Your task to perform on an android device: Open calendar and show me the fourth week of next month Image 0: 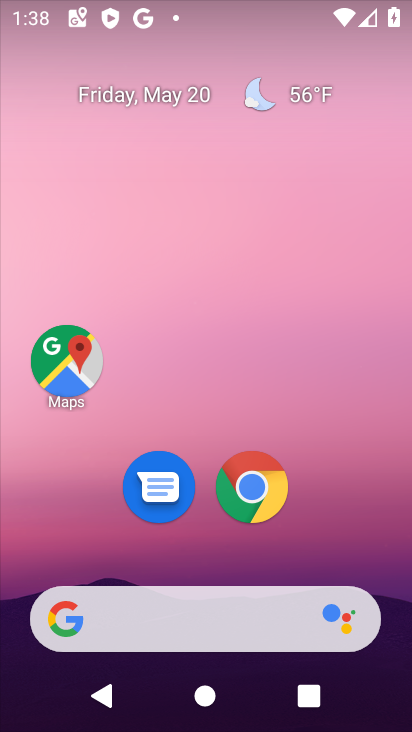
Step 0: drag from (202, 559) to (271, 10)
Your task to perform on an android device: Open calendar and show me the fourth week of next month Image 1: 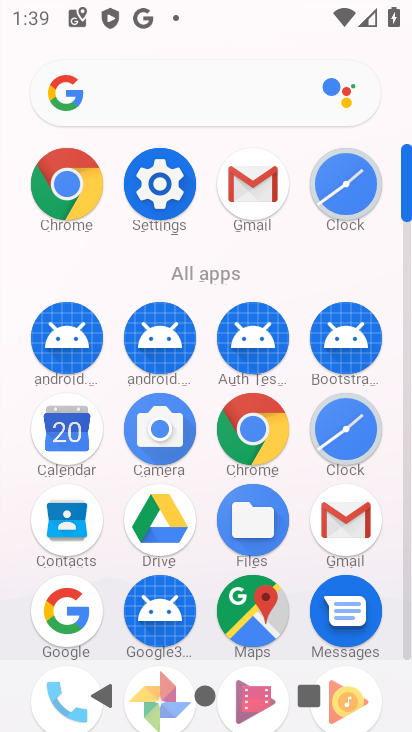
Step 1: click (59, 432)
Your task to perform on an android device: Open calendar and show me the fourth week of next month Image 2: 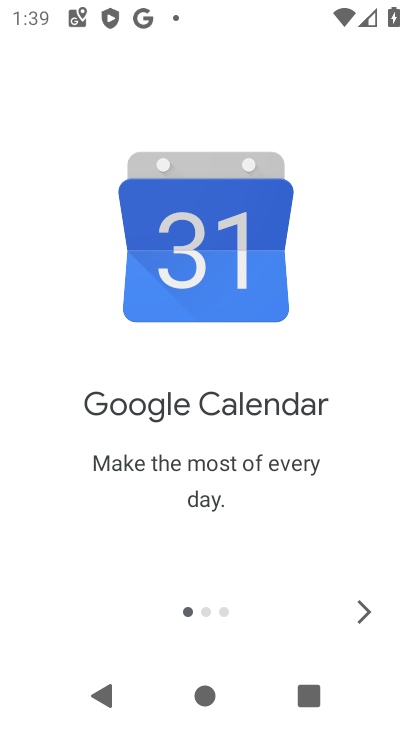
Step 2: click (374, 618)
Your task to perform on an android device: Open calendar and show me the fourth week of next month Image 3: 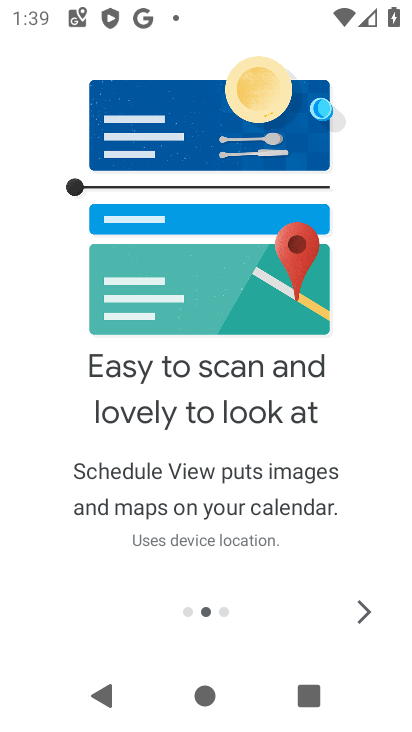
Step 3: click (360, 612)
Your task to perform on an android device: Open calendar and show me the fourth week of next month Image 4: 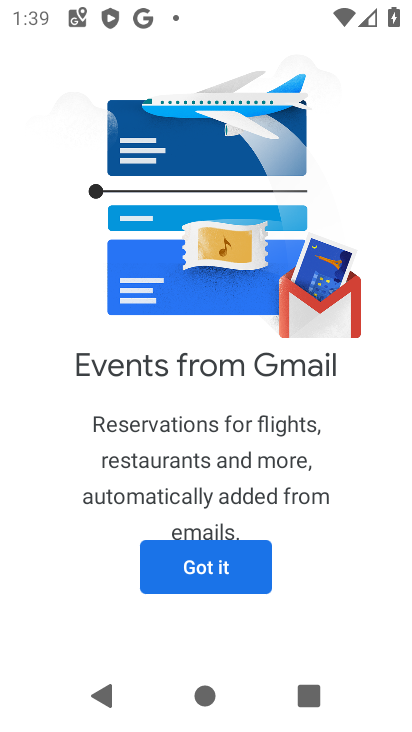
Step 4: click (223, 568)
Your task to perform on an android device: Open calendar and show me the fourth week of next month Image 5: 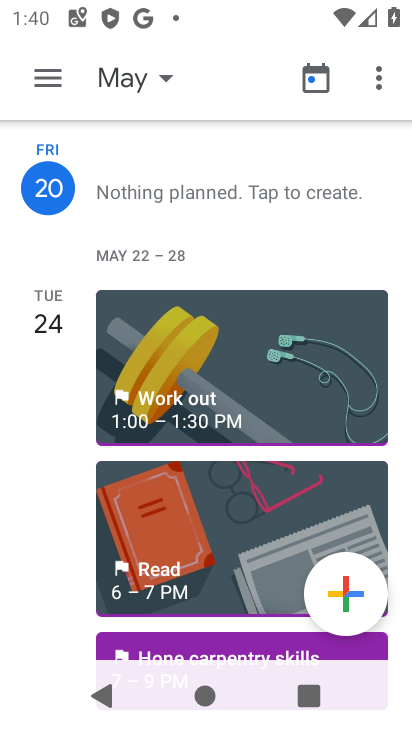
Step 5: click (48, 79)
Your task to perform on an android device: Open calendar and show me the fourth week of next month Image 6: 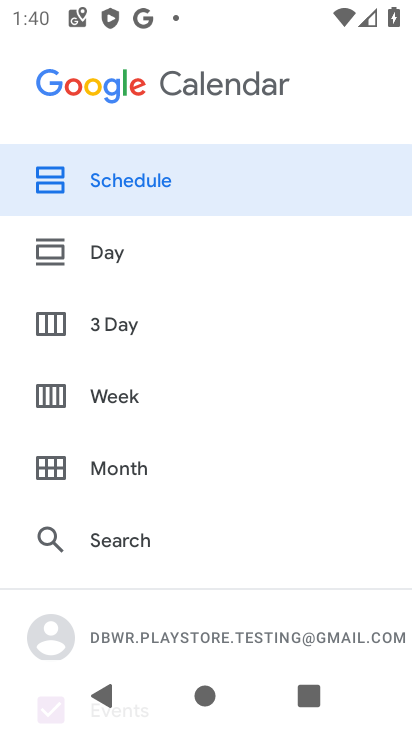
Step 6: click (97, 382)
Your task to perform on an android device: Open calendar and show me the fourth week of next month Image 7: 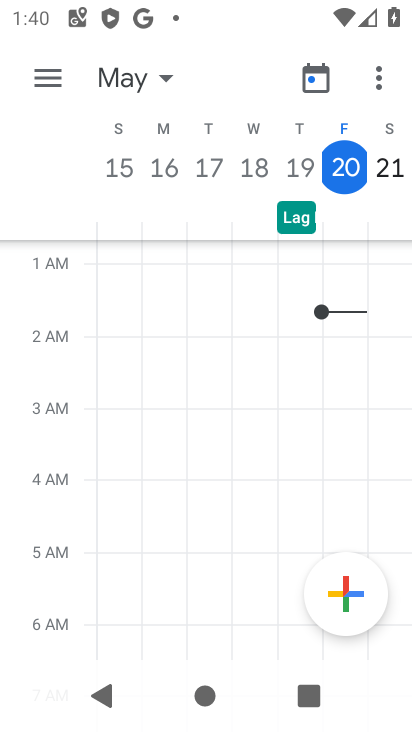
Step 7: drag from (384, 169) to (0, 179)
Your task to perform on an android device: Open calendar and show me the fourth week of next month Image 8: 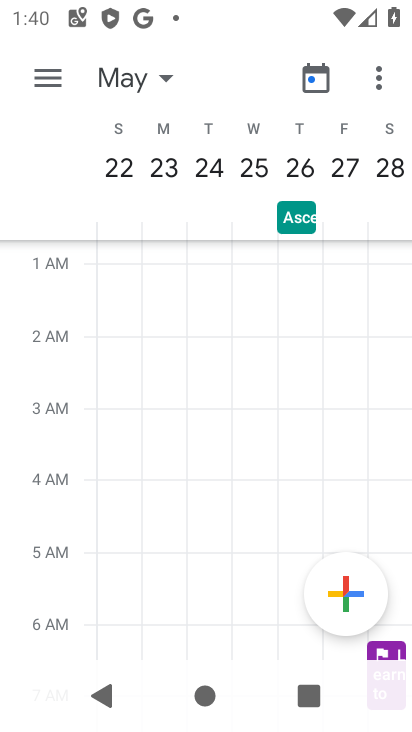
Step 8: drag from (369, 158) to (15, 174)
Your task to perform on an android device: Open calendar and show me the fourth week of next month Image 9: 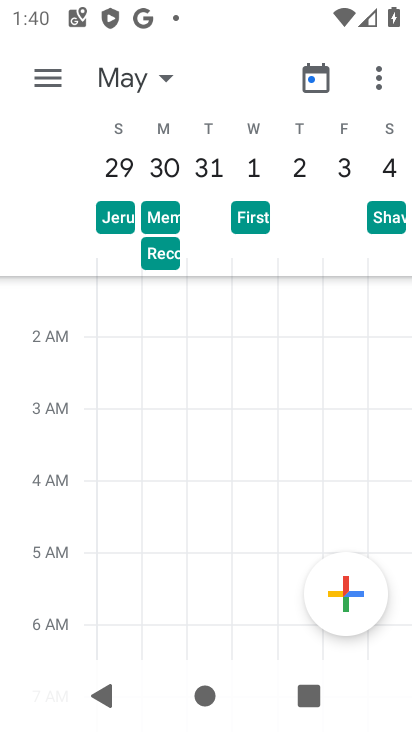
Step 9: drag from (388, 167) to (47, 169)
Your task to perform on an android device: Open calendar and show me the fourth week of next month Image 10: 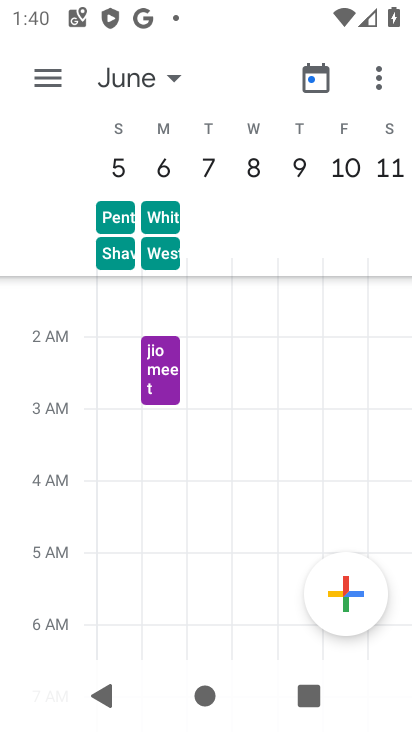
Step 10: drag from (384, 165) to (122, 183)
Your task to perform on an android device: Open calendar and show me the fourth week of next month Image 11: 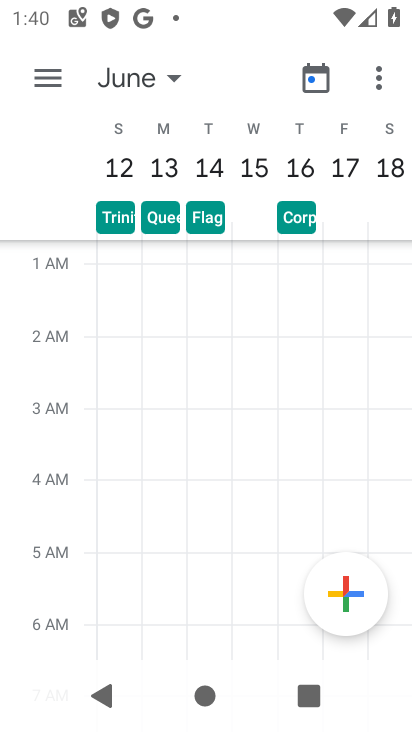
Step 11: drag from (382, 160) to (30, 185)
Your task to perform on an android device: Open calendar and show me the fourth week of next month Image 12: 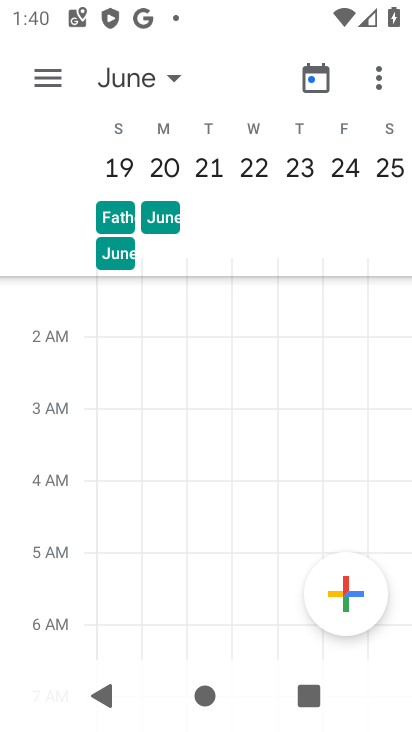
Step 12: click (117, 167)
Your task to perform on an android device: Open calendar and show me the fourth week of next month Image 13: 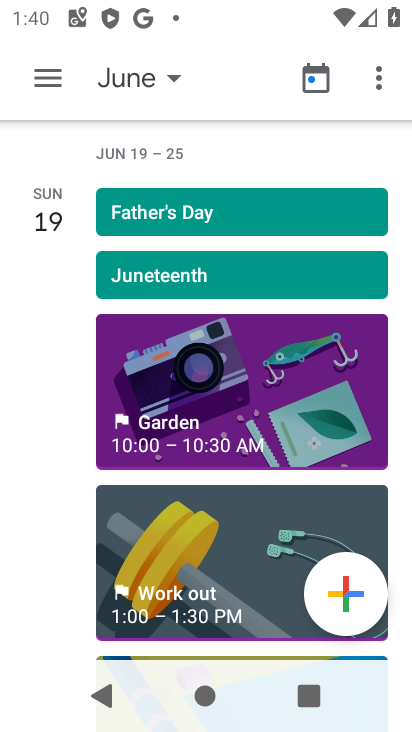
Step 13: click (77, 214)
Your task to perform on an android device: Open calendar and show me the fourth week of next month Image 14: 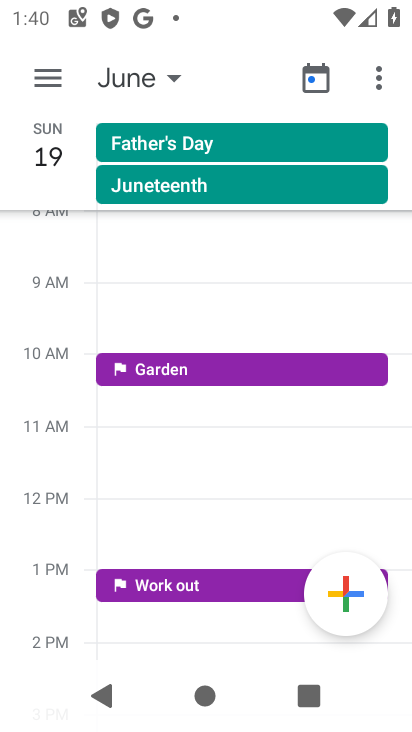
Step 14: click (77, 197)
Your task to perform on an android device: Open calendar and show me the fourth week of next month Image 15: 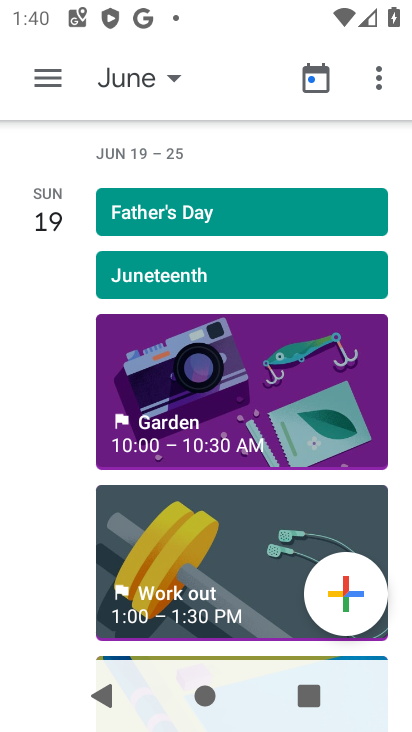
Step 15: task complete